Your task to perform on an android device: open chrome privacy settings Image 0: 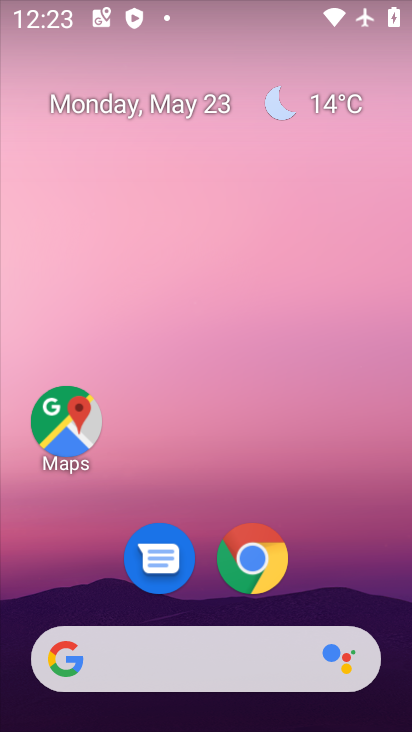
Step 0: click (257, 567)
Your task to perform on an android device: open chrome privacy settings Image 1: 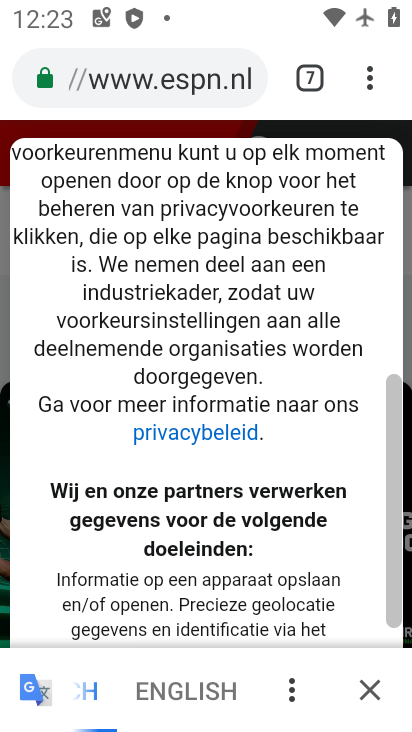
Step 1: click (369, 79)
Your task to perform on an android device: open chrome privacy settings Image 2: 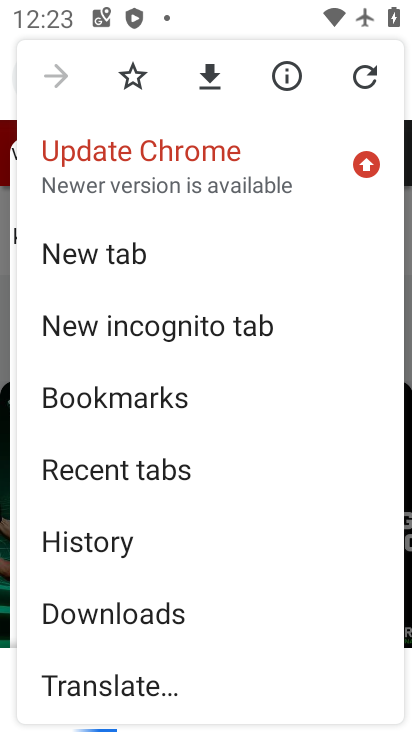
Step 2: drag from (245, 656) to (240, 293)
Your task to perform on an android device: open chrome privacy settings Image 3: 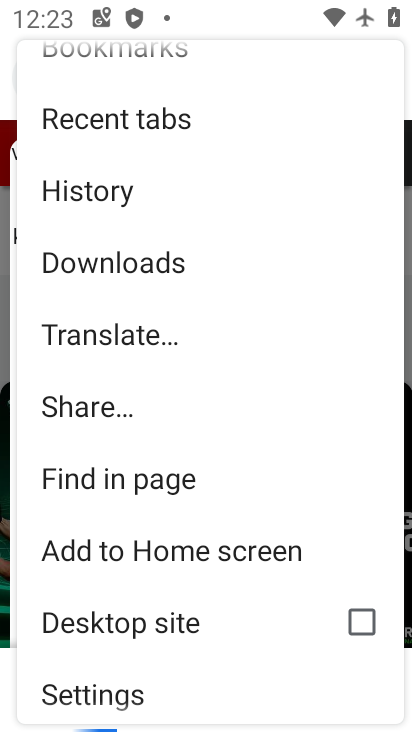
Step 3: drag from (234, 603) to (234, 362)
Your task to perform on an android device: open chrome privacy settings Image 4: 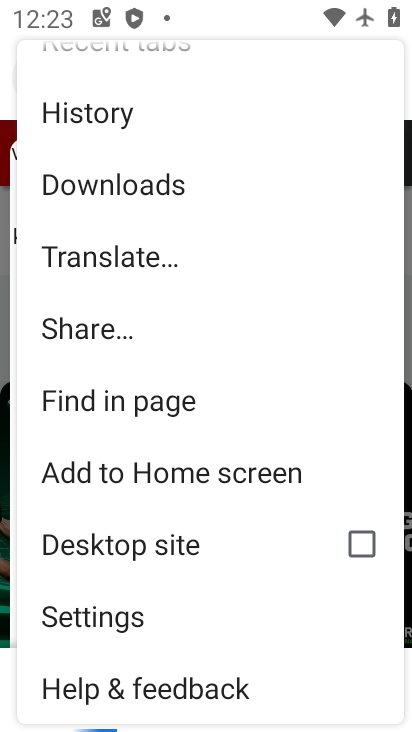
Step 4: click (107, 619)
Your task to perform on an android device: open chrome privacy settings Image 5: 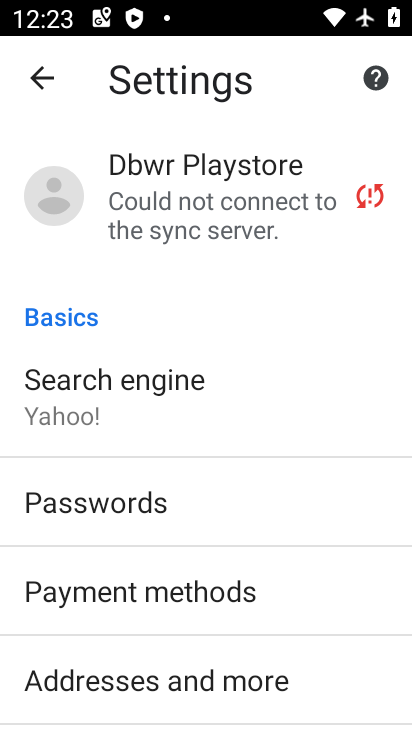
Step 5: drag from (284, 601) to (297, 231)
Your task to perform on an android device: open chrome privacy settings Image 6: 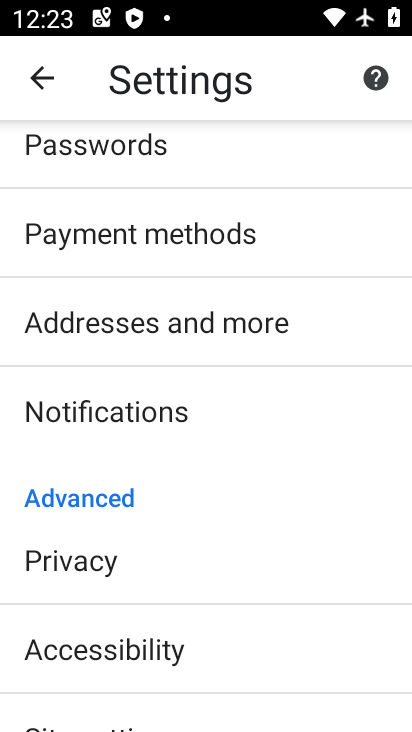
Step 6: click (81, 569)
Your task to perform on an android device: open chrome privacy settings Image 7: 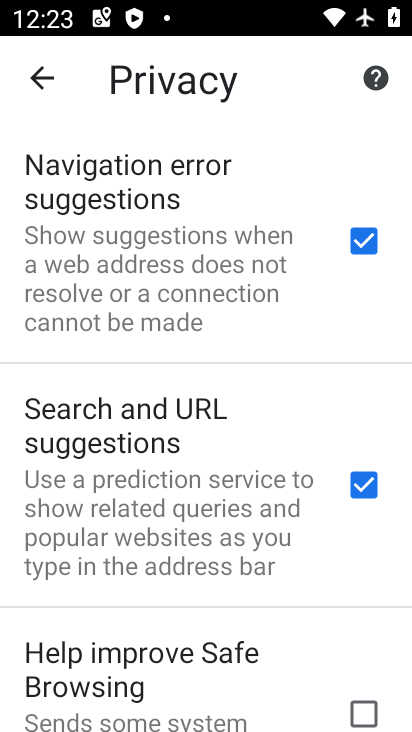
Step 7: task complete